Your task to perform on an android device: Go to battery settings Image 0: 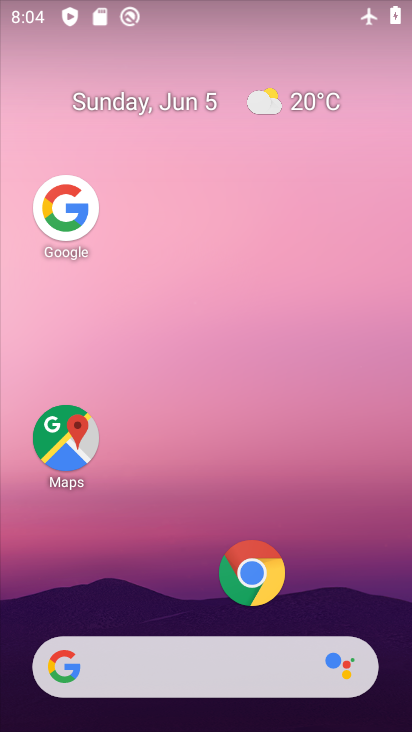
Step 0: drag from (200, 616) to (157, 19)
Your task to perform on an android device: Go to battery settings Image 1: 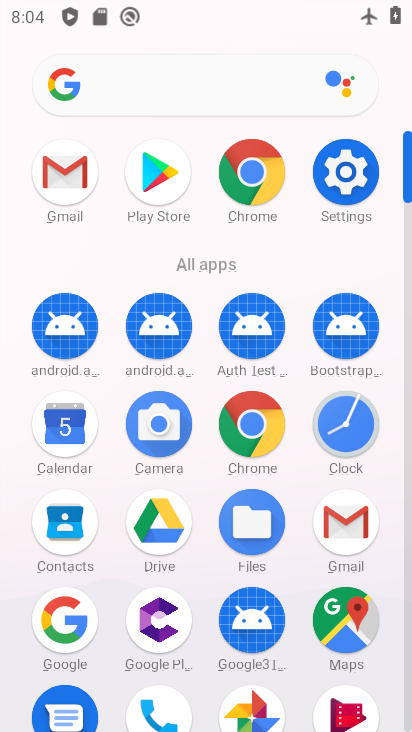
Step 1: click (356, 186)
Your task to perform on an android device: Go to battery settings Image 2: 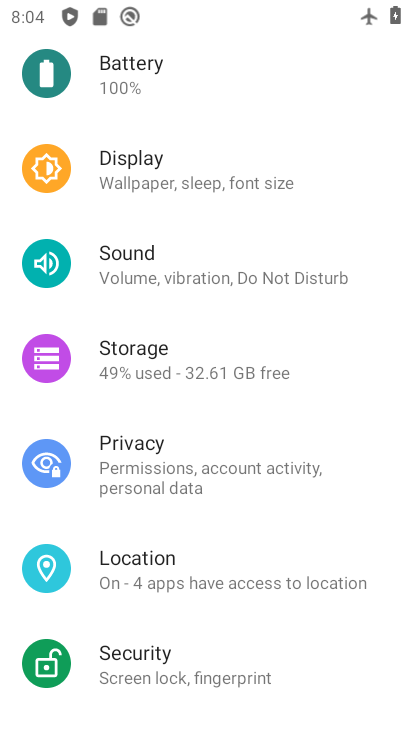
Step 2: click (104, 67)
Your task to perform on an android device: Go to battery settings Image 3: 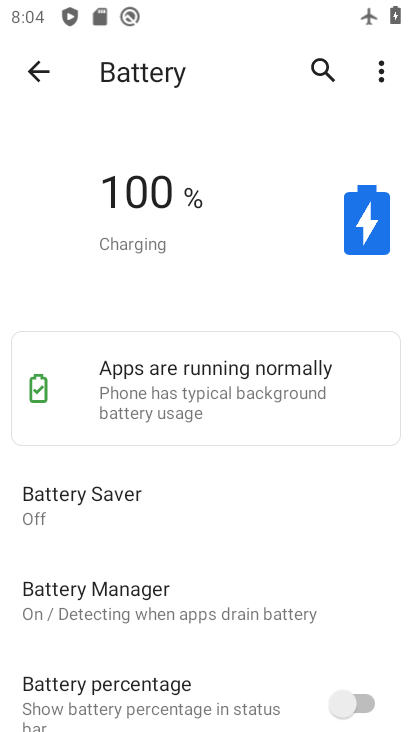
Step 3: task complete